Your task to perform on an android device: Search for macbook pro 15 inch on ebay.com, select the first entry, add it to the cart, then select checkout. Image 0: 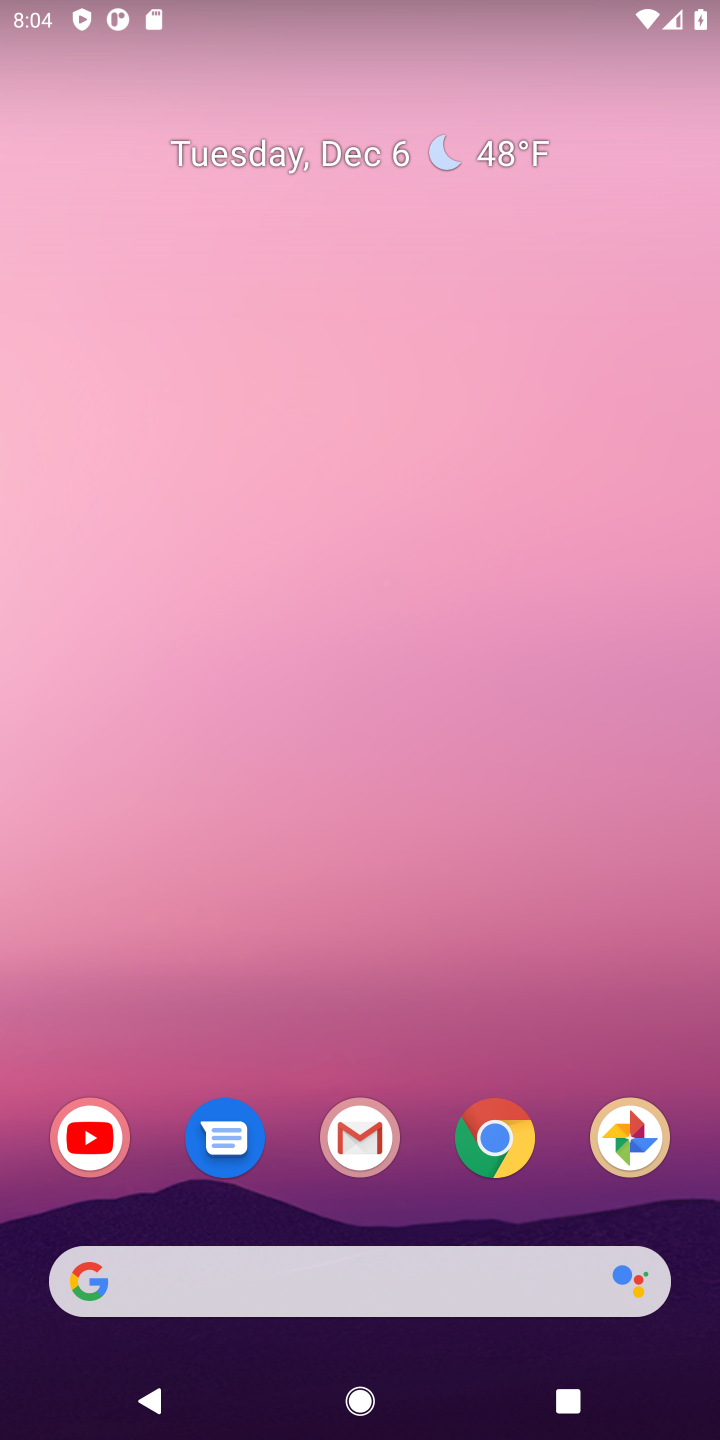
Step 0: click (495, 1145)
Your task to perform on an android device: Search for macbook pro 15 inch on ebay.com, select the first entry, add it to the cart, then select checkout. Image 1: 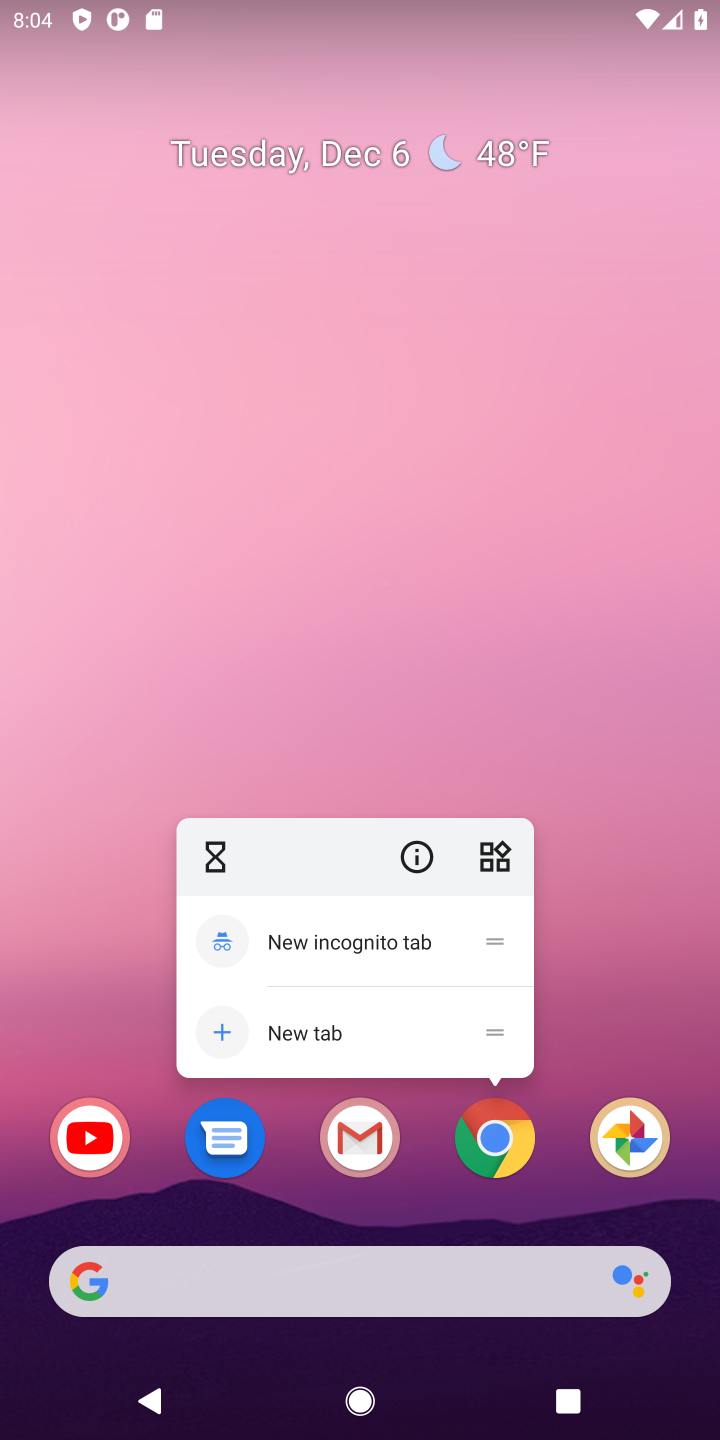
Step 1: click (495, 1145)
Your task to perform on an android device: Search for macbook pro 15 inch on ebay.com, select the first entry, add it to the cart, then select checkout. Image 2: 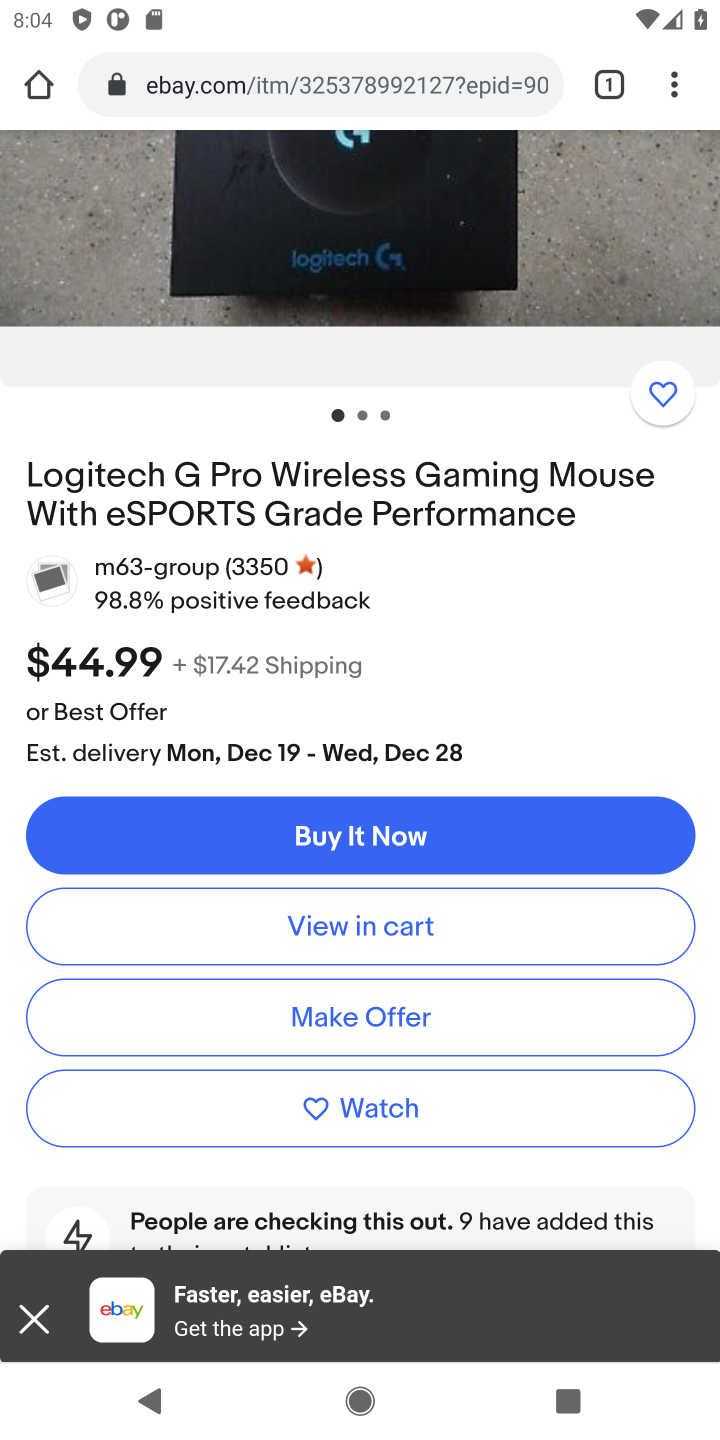
Step 2: drag from (604, 312) to (608, 1058)
Your task to perform on an android device: Search for macbook pro 15 inch on ebay.com, select the first entry, add it to the cart, then select checkout. Image 3: 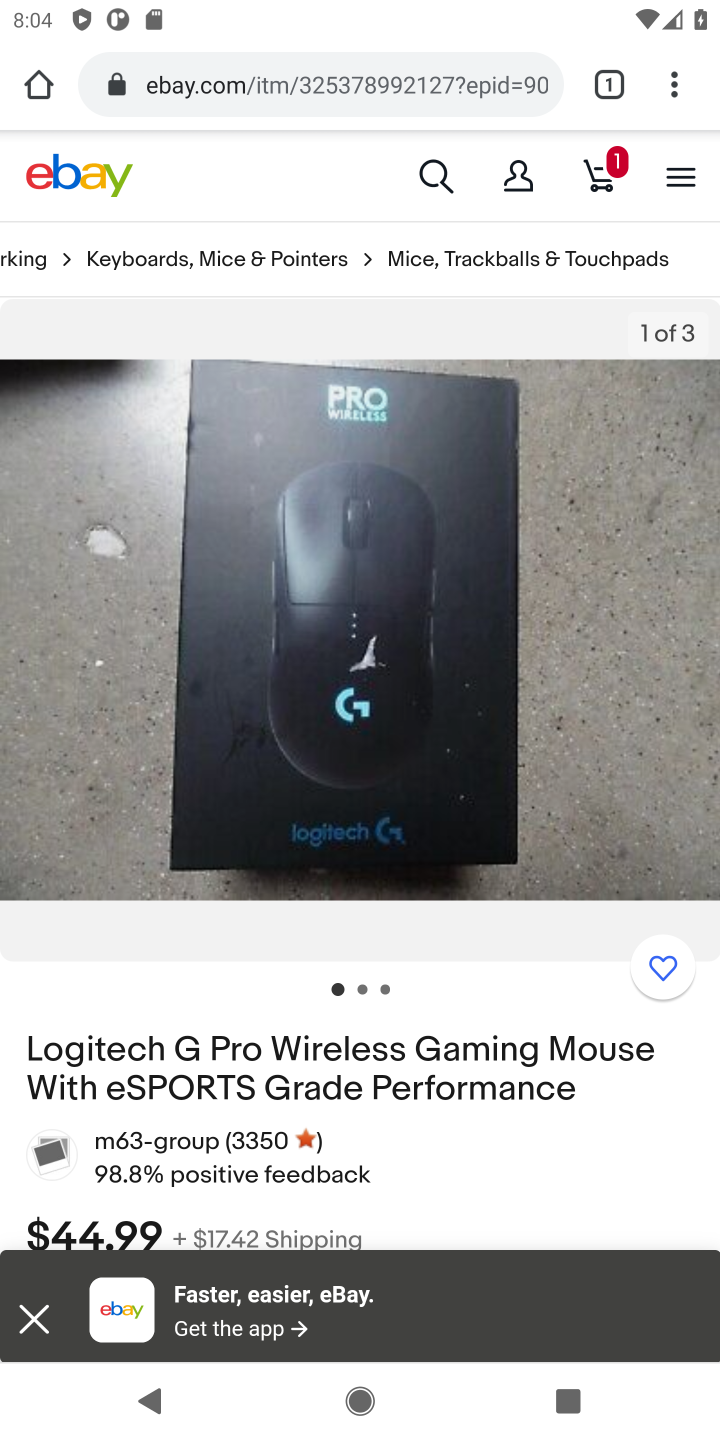
Step 3: click (430, 183)
Your task to perform on an android device: Search for macbook pro 15 inch on ebay.com, select the first entry, add it to the cart, then select checkout. Image 4: 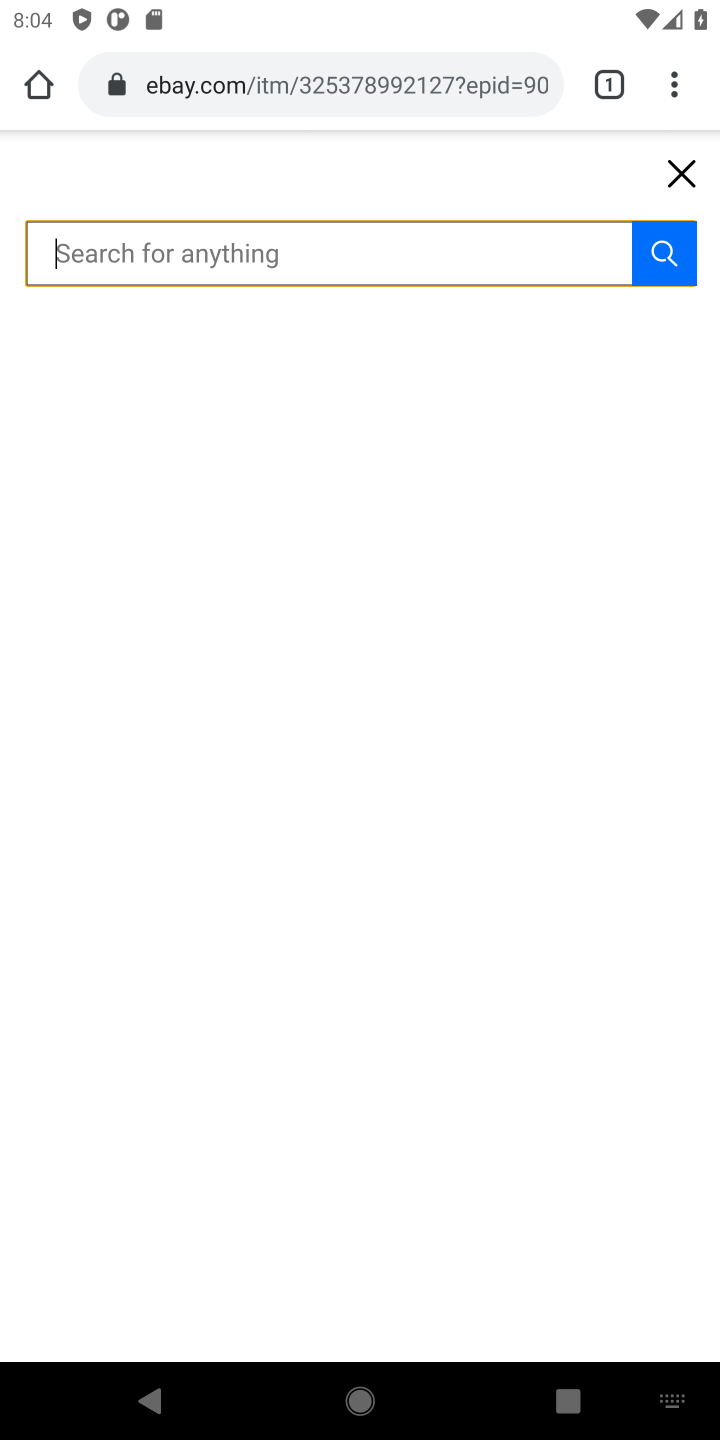
Step 4: type "macbook pro 15 inch"
Your task to perform on an android device: Search for macbook pro 15 inch on ebay.com, select the first entry, add it to the cart, then select checkout. Image 5: 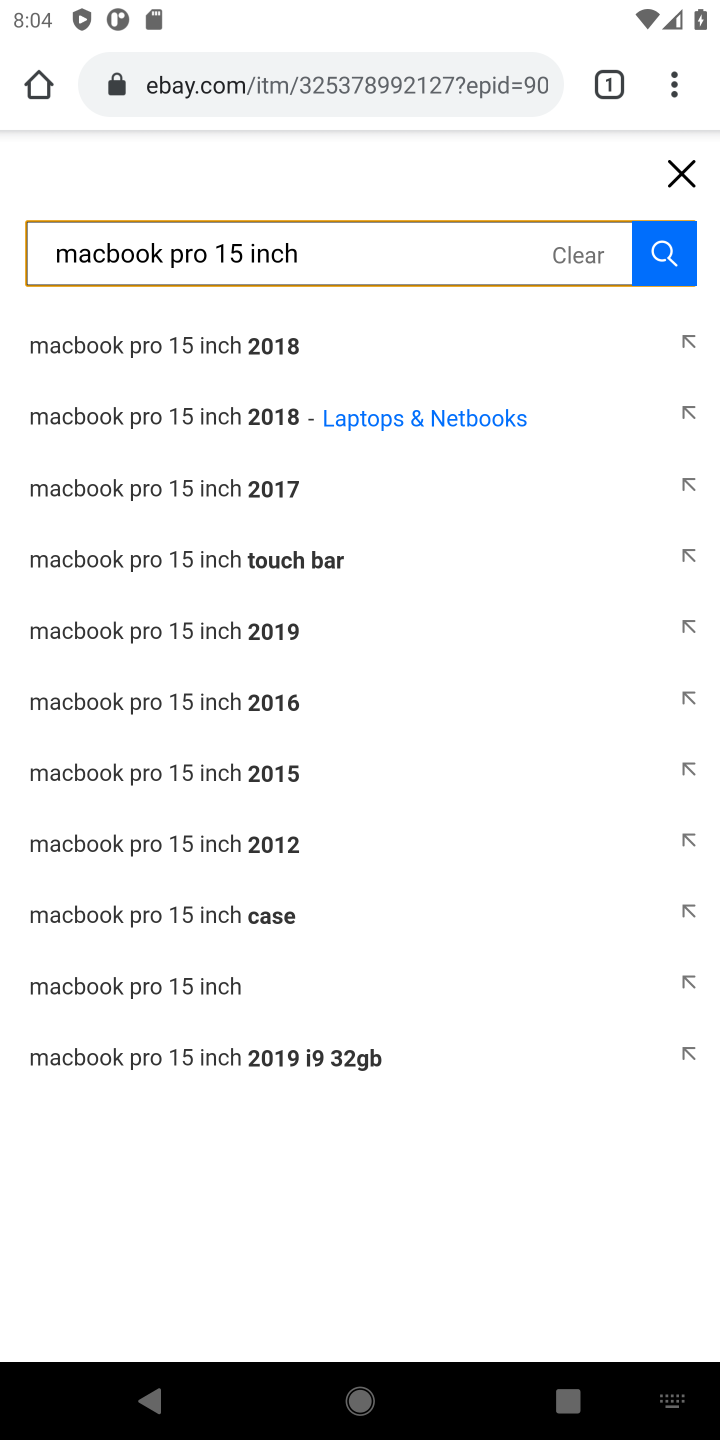
Step 5: click (186, 980)
Your task to perform on an android device: Search for macbook pro 15 inch on ebay.com, select the first entry, add it to the cart, then select checkout. Image 6: 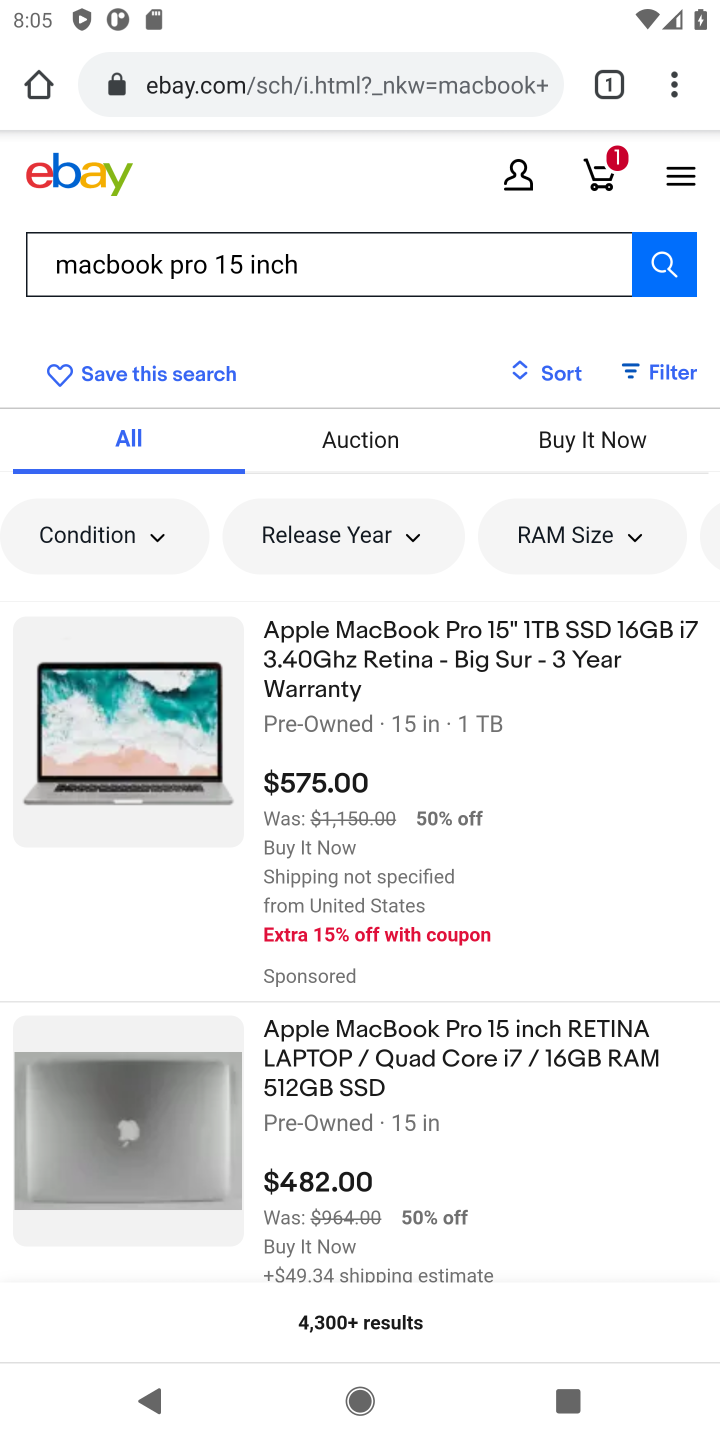
Step 6: click (337, 663)
Your task to perform on an android device: Search for macbook pro 15 inch on ebay.com, select the first entry, add it to the cart, then select checkout. Image 7: 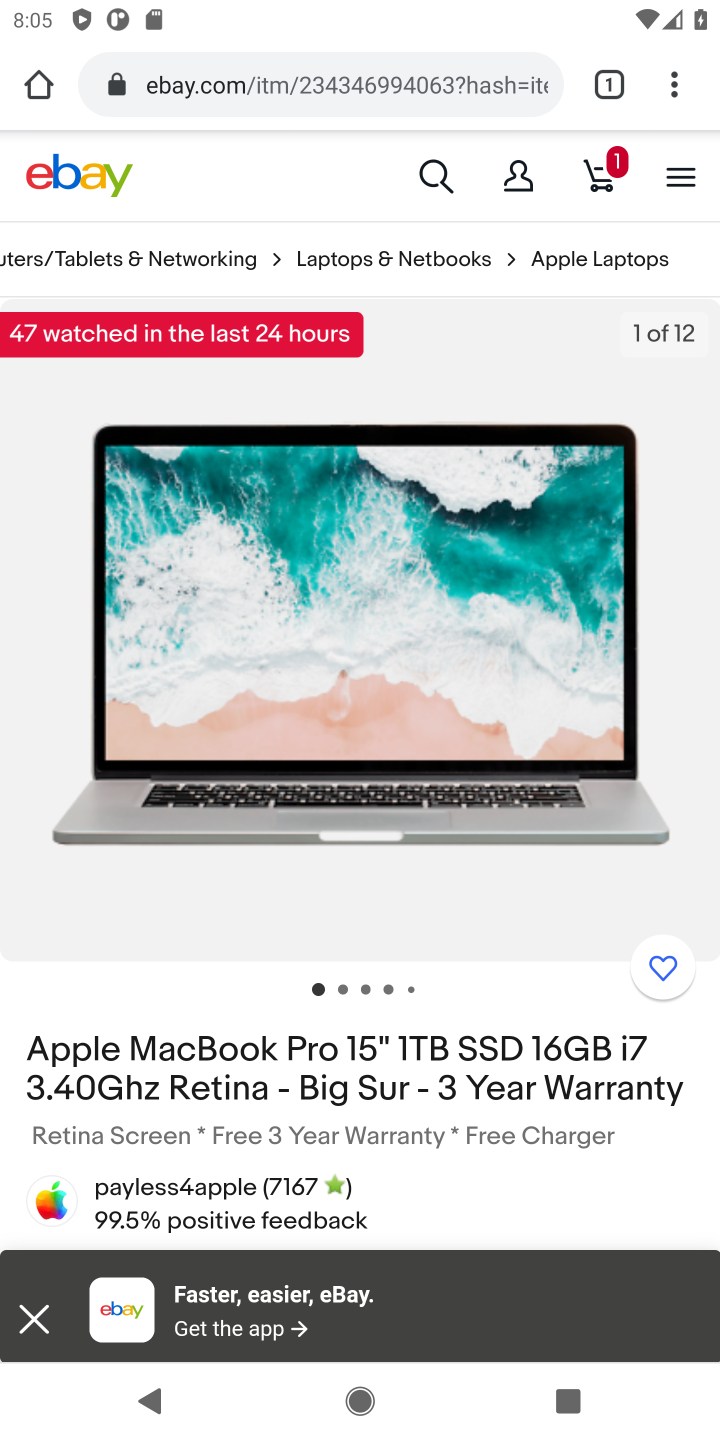
Step 7: drag from (435, 1189) to (314, 482)
Your task to perform on an android device: Search for macbook pro 15 inch on ebay.com, select the first entry, add it to the cart, then select checkout. Image 8: 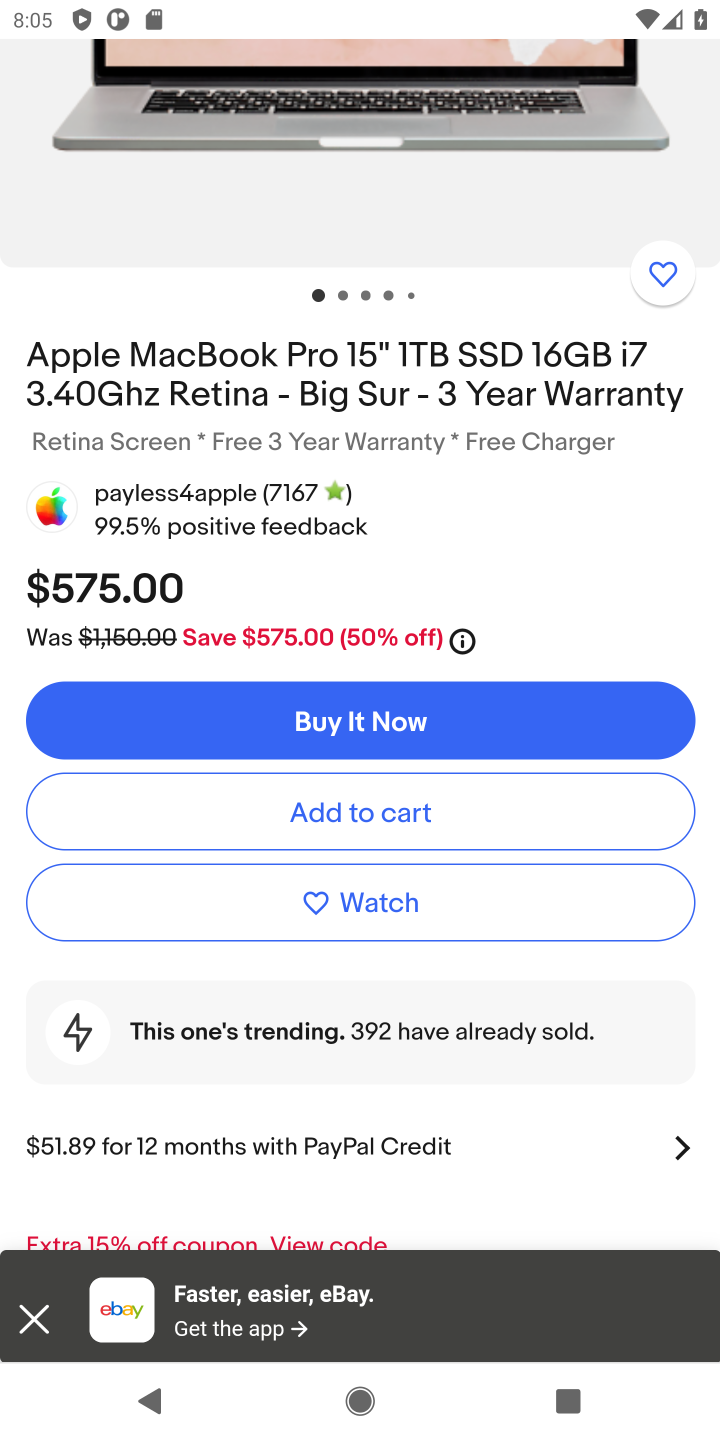
Step 8: click (282, 814)
Your task to perform on an android device: Search for macbook pro 15 inch on ebay.com, select the first entry, add it to the cart, then select checkout. Image 9: 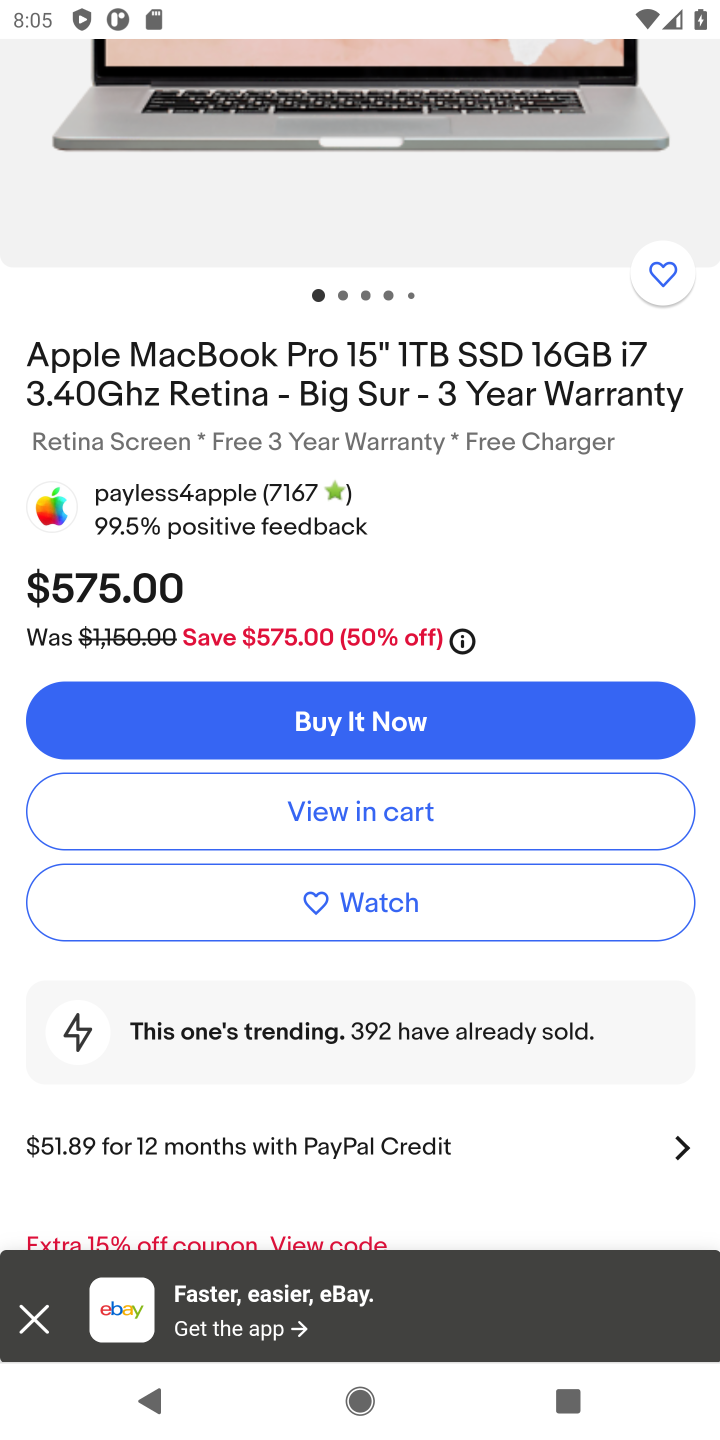
Step 9: click (313, 812)
Your task to perform on an android device: Search for macbook pro 15 inch on ebay.com, select the first entry, add it to the cart, then select checkout. Image 10: 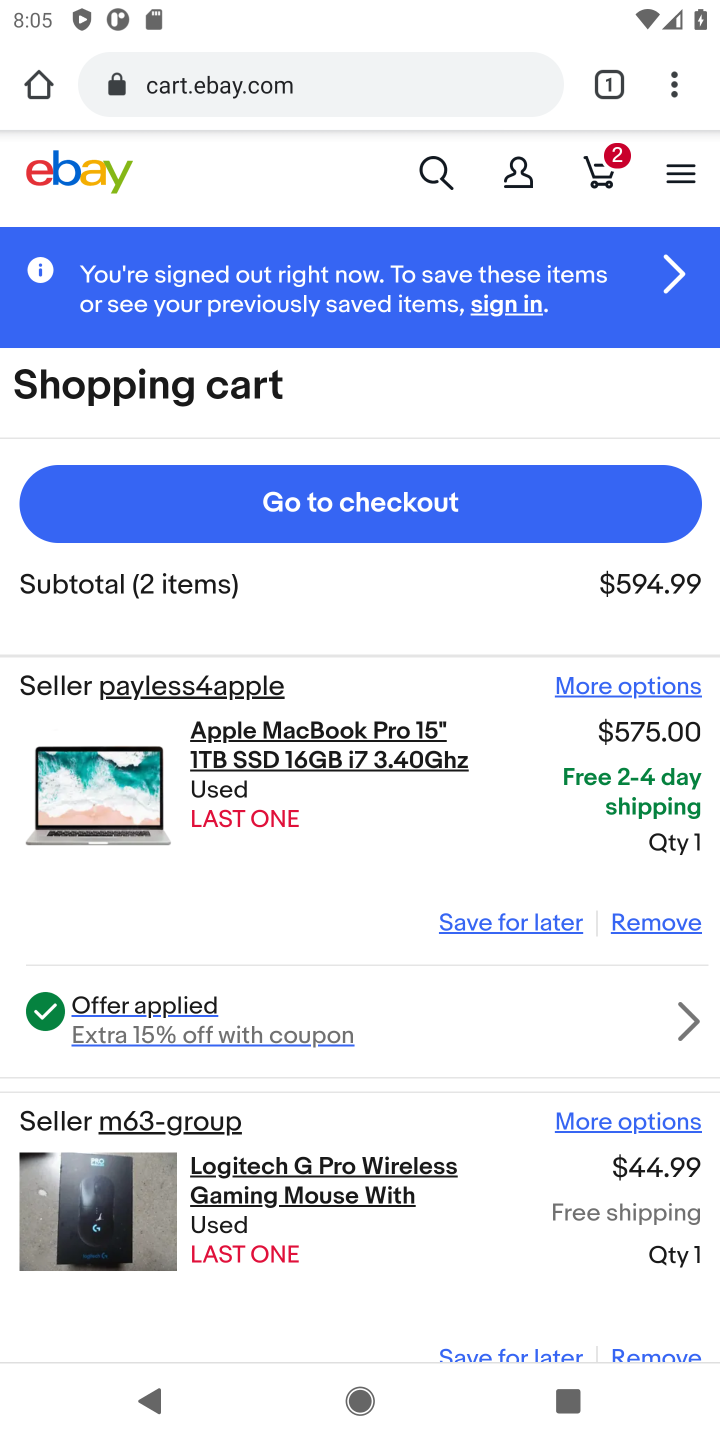
Step 10: click (344, 512)
Your task to perform on an android device: Search for macbook pro 15 inch on ebay.com, select the first entry, add it to the cart, then select checkout. Image 11: 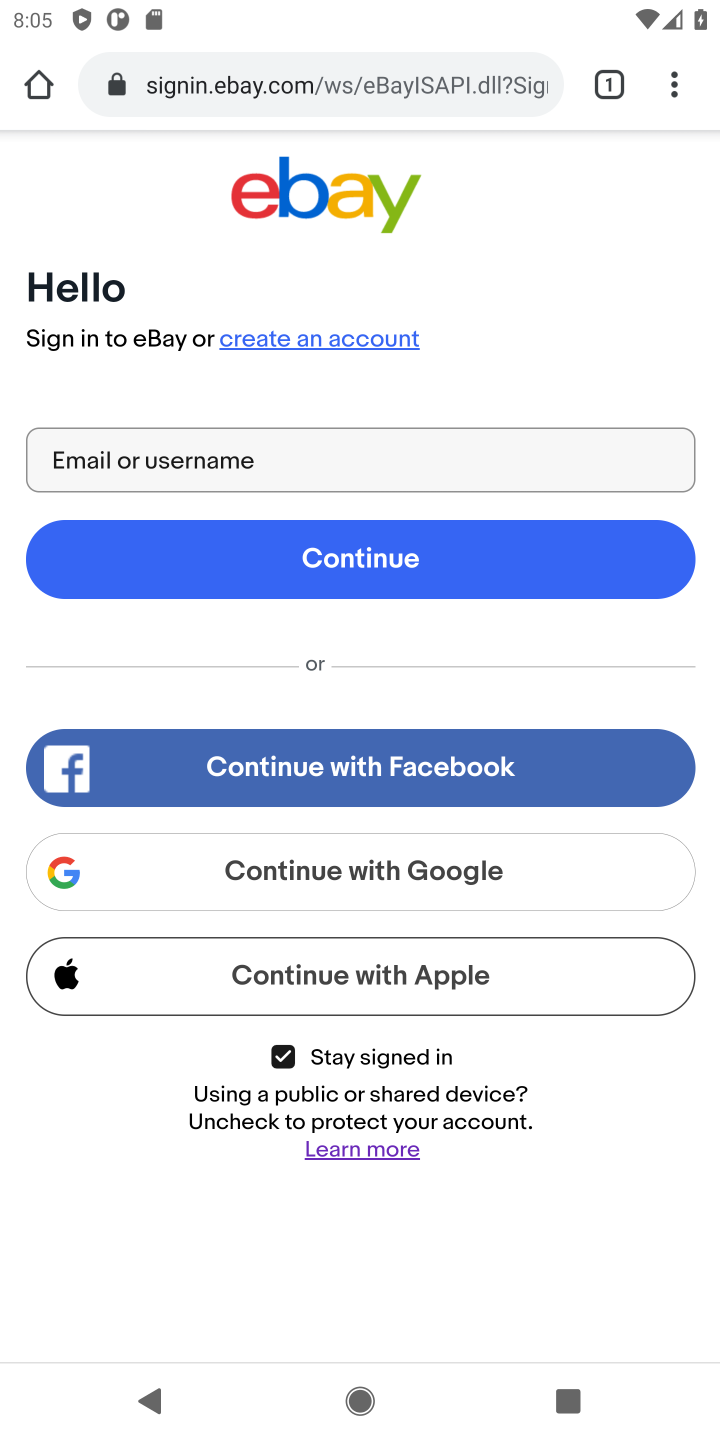
Step 11: task complete